Your task to perform on an android device: Search for Italian restaurants on Maps Image 0: 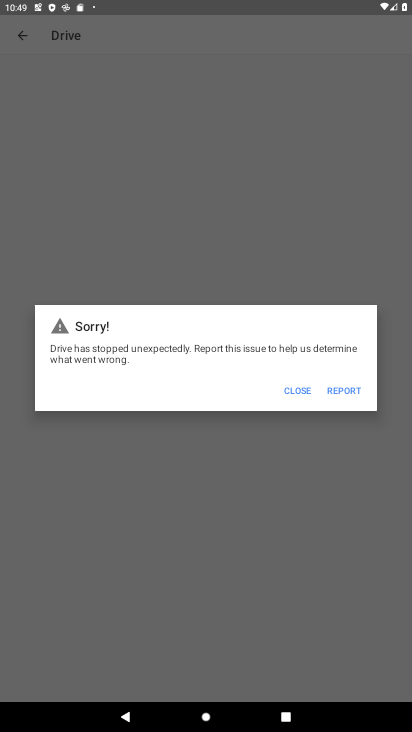
Step 0: press home button
Your task to perform on an android device: Search for Italian restaurants on Maps Image 1: 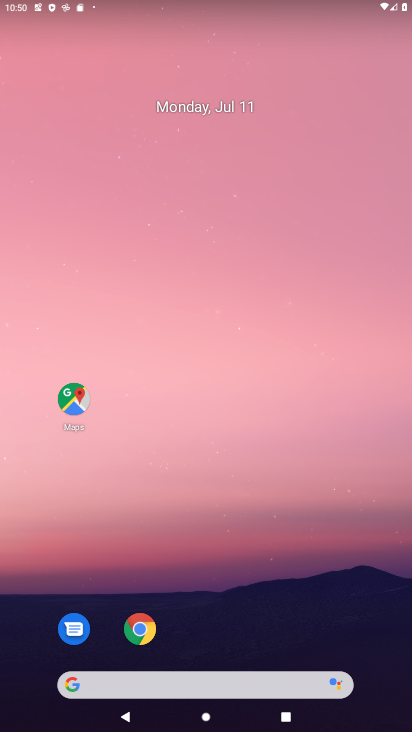
Step 1: click (278, 630)
Your task to perform on an android device: Search for Italian restaurants on Maps Image 2: 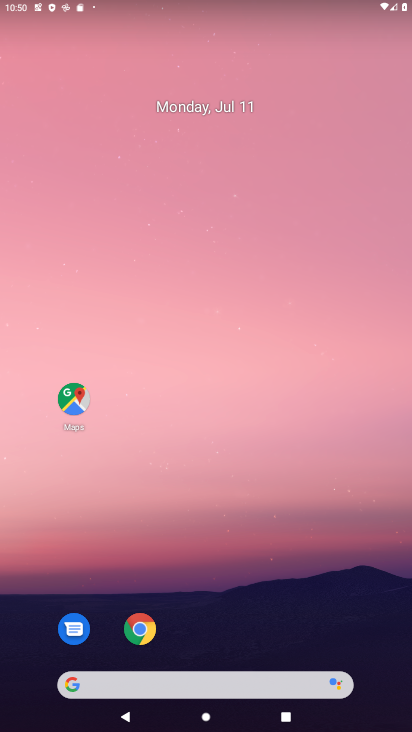
Step 2: click (75, 423)
Your task to perform on an android device: Search for Italian restaurants on Maps Image 3: 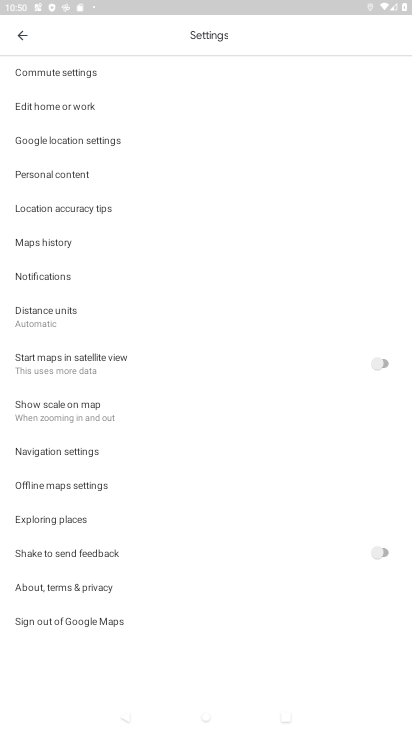
Step 3: press back button
Your task to perform on an android device: Search for Italian restaurants on Maps Image 4: 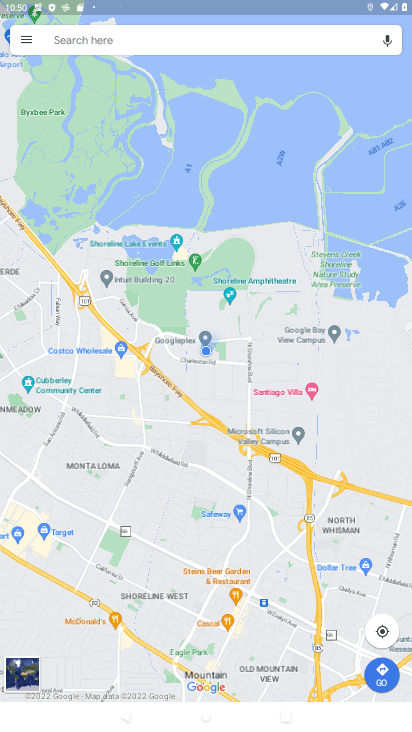
Step 4: click (204, 40)
Your task to perform on an android device: Search for Italian restaurants on Maps Image 5: 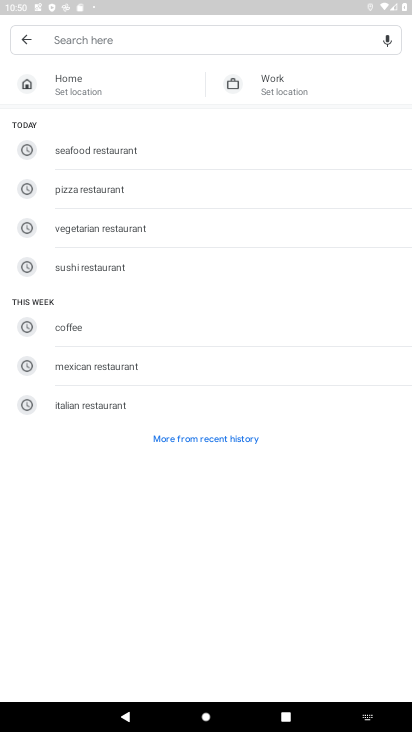
Step 5: click (119, 395)
Your task to perform on an android device: Search for Italian restaurants on Maps Image 6: 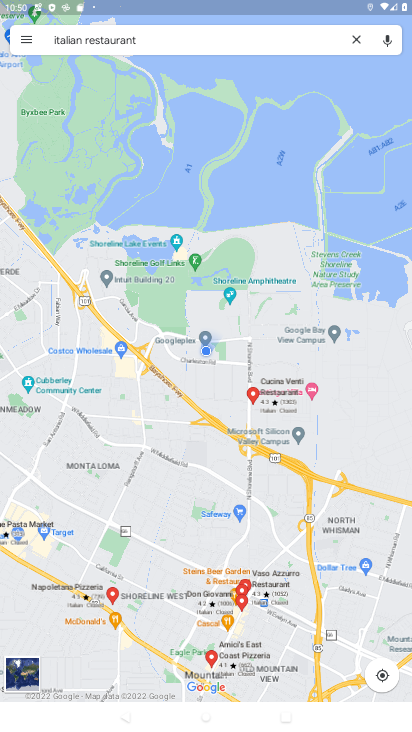
Step 6: task complete